Your task to perform on an android device: install app "Microsoft Excel" Image 0: 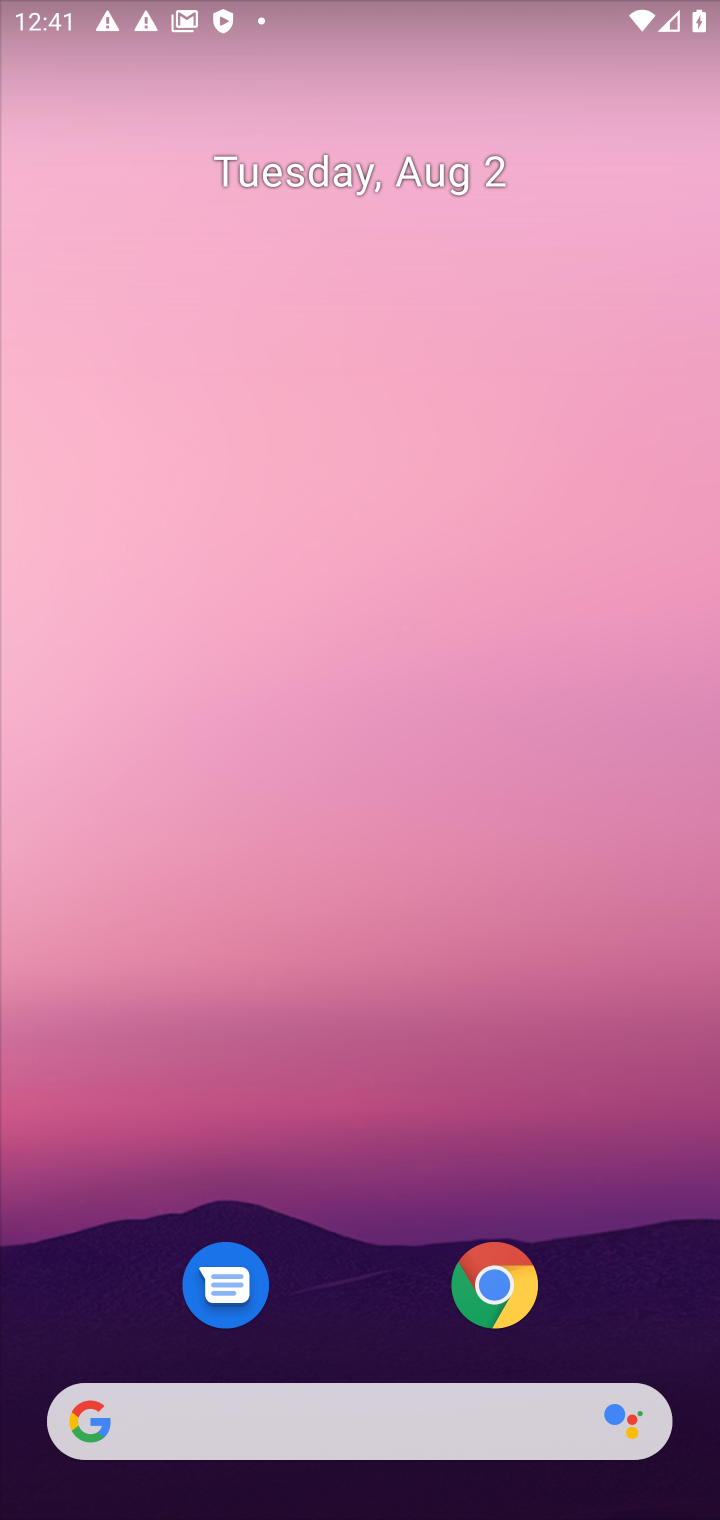
Step 0: drag from (430, 933) to (530, 88)
Your task to perform on an android device: install app "Microsoft Excel" Image 1: 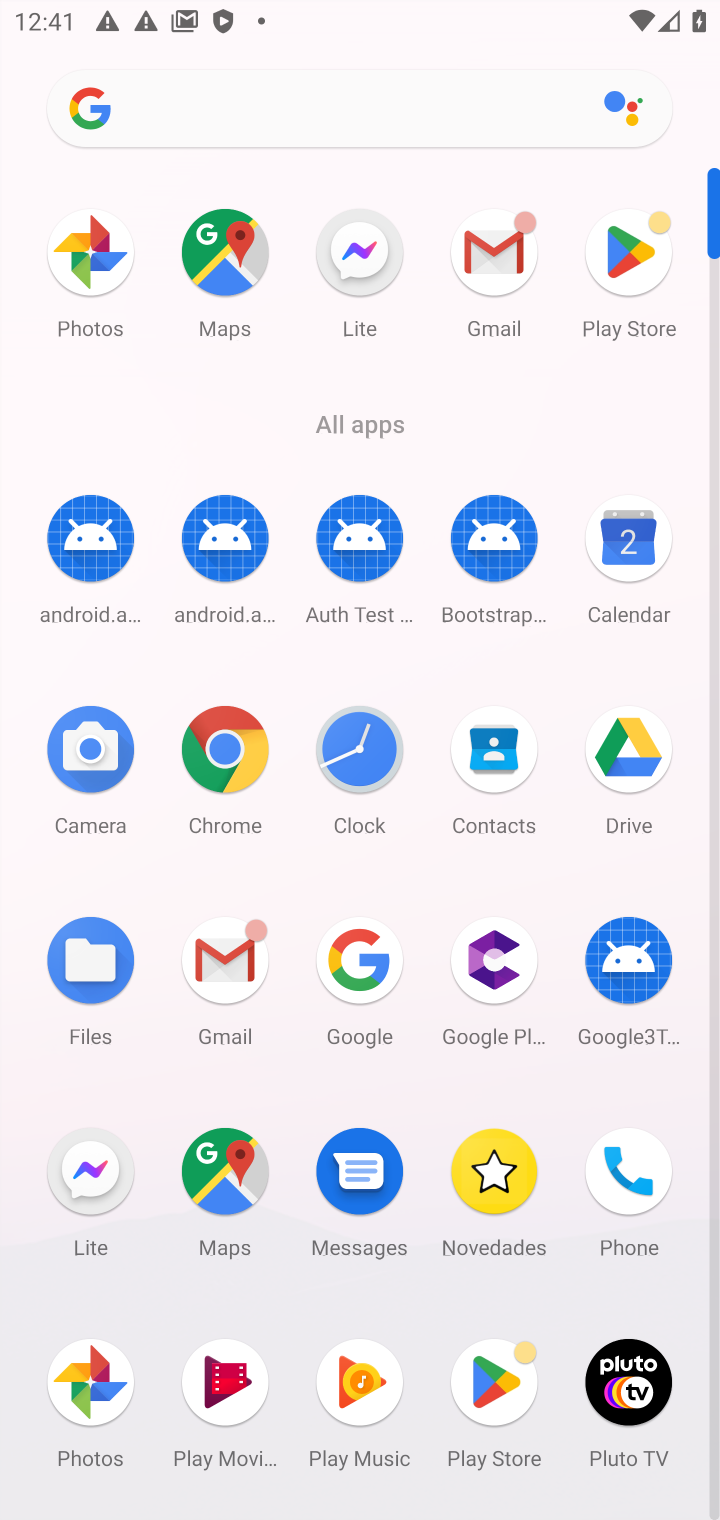
Step 1: click (475, 1376)
Your task to perform on an android device: install app "Microsoft Excel" Image 2: 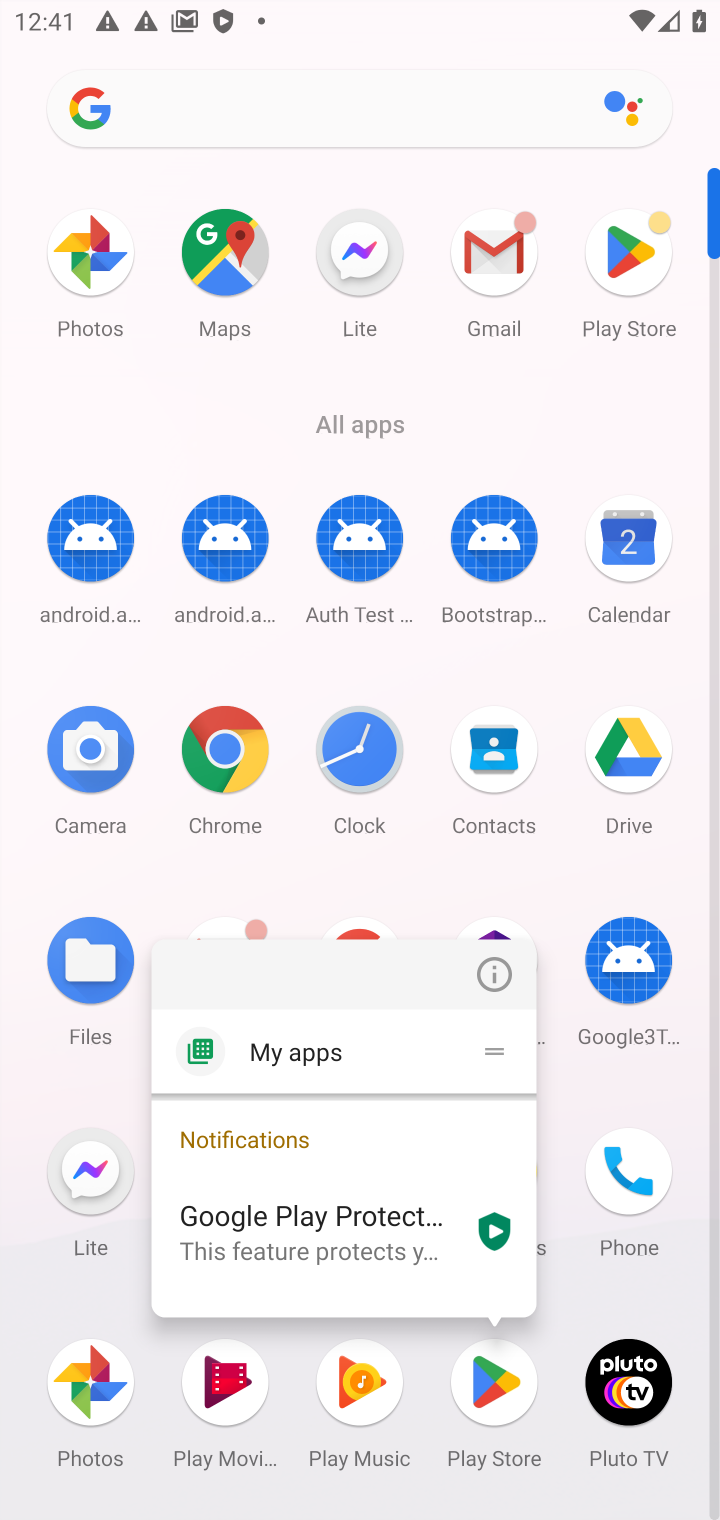
Step 2: click (495, 1381)
Your task to perform on an android device: install app "Microsoft Excel" Image 3: 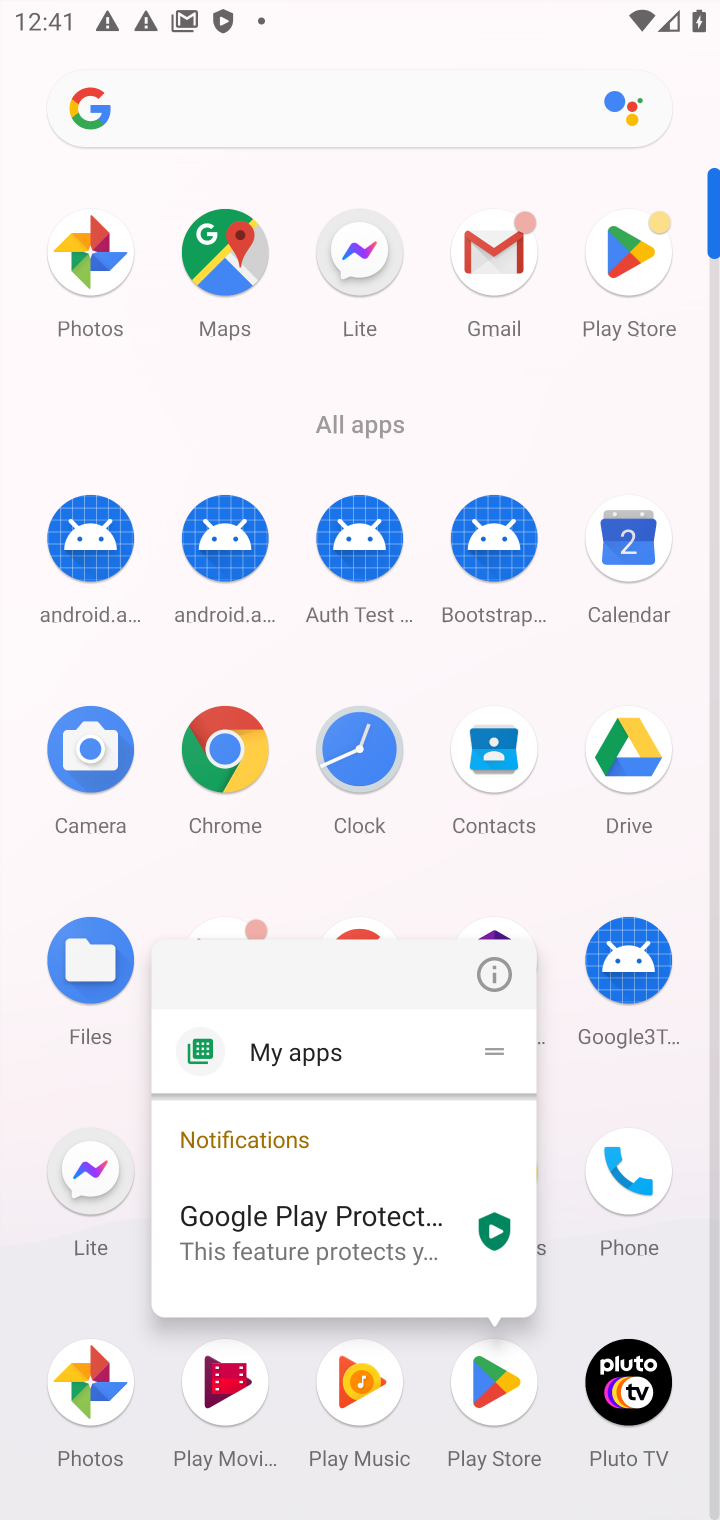
Step 3: click (502, 1386)
Your task to perform on an android device: install app "Microsoft Excel" Image 4: 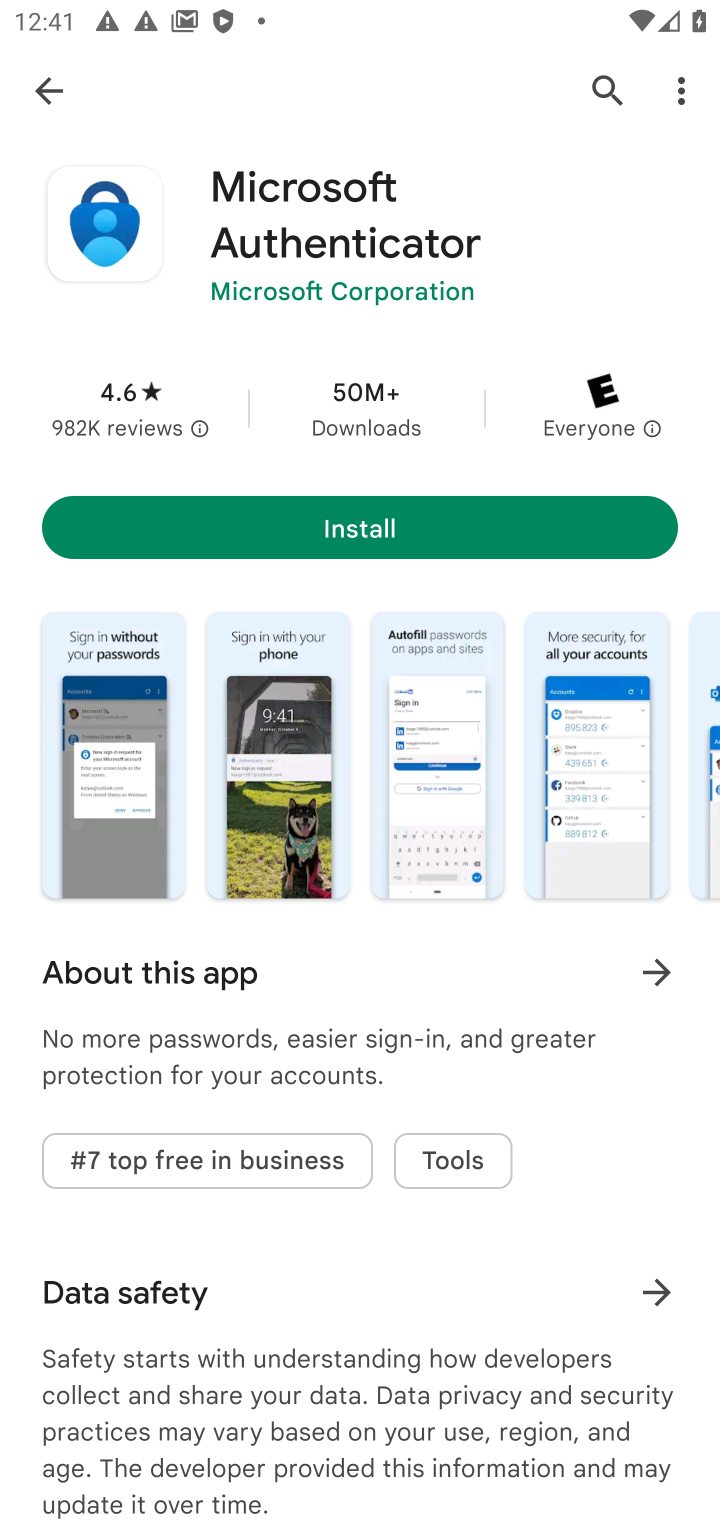
Step 4: click (610, 74)
Your task to perform on an android device: install app "Microsoft Excel" Image 5: 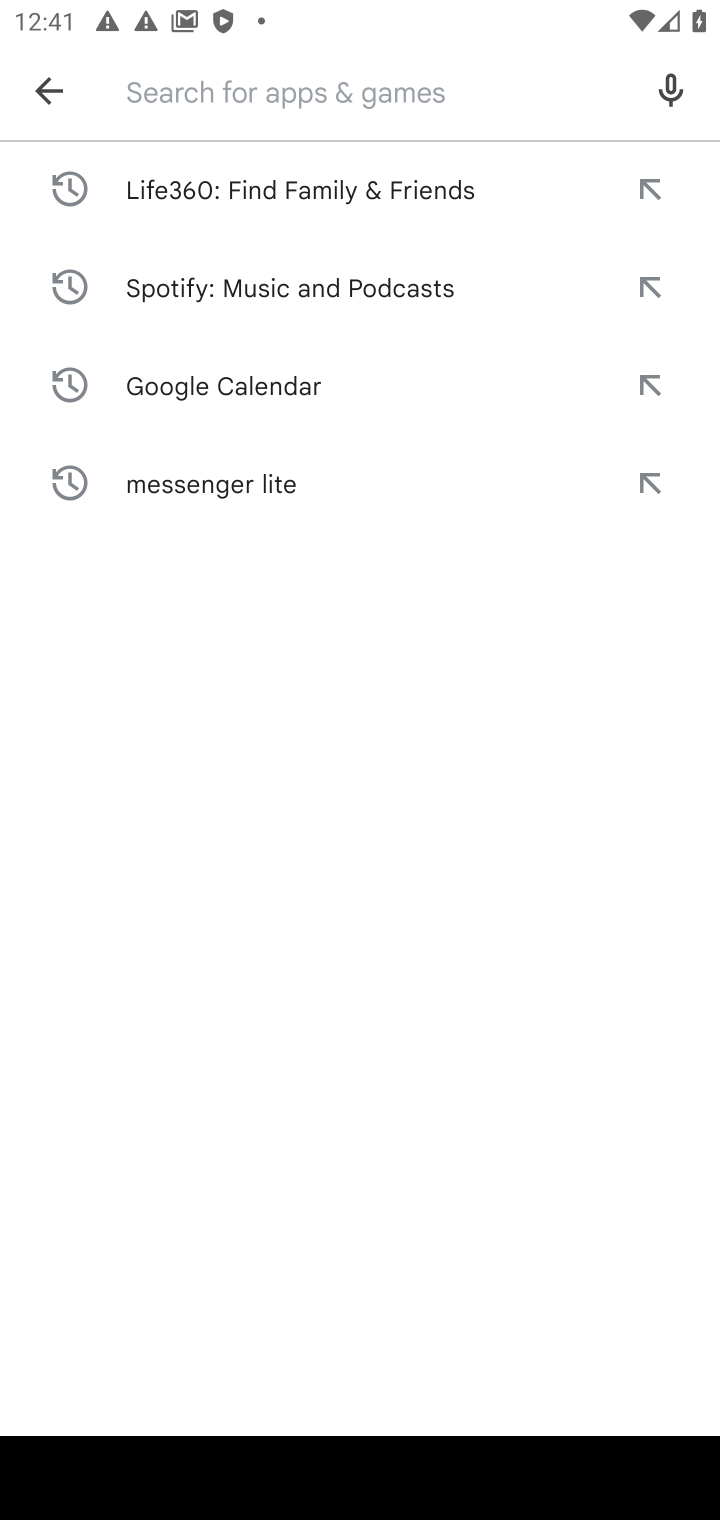
Step 5: click (44, 67)
Your task to perform on an android device: install app "Microsoft Excel" Image 6: 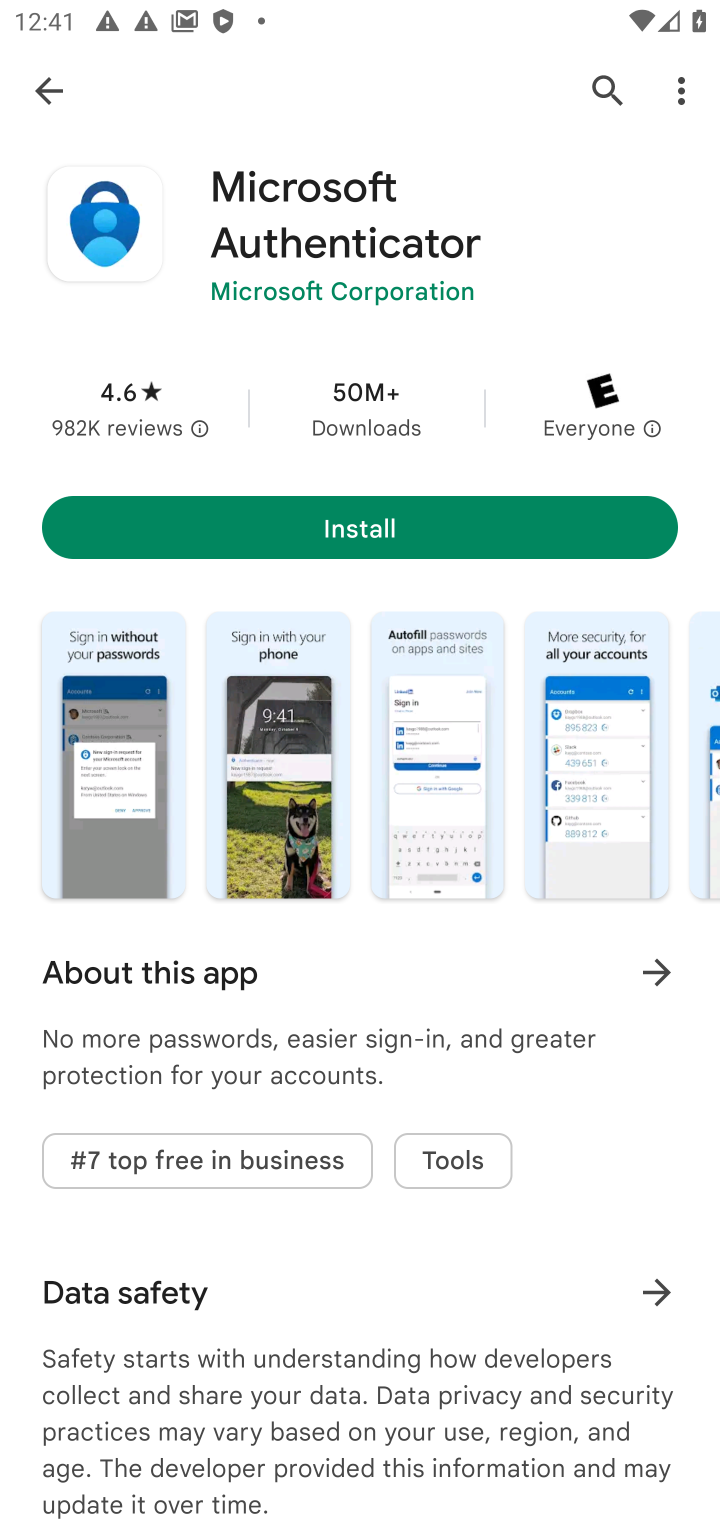
Step 6: click (537, 535)
Your task to perform on an android device: install app "Microsoft Excel" Image 7: 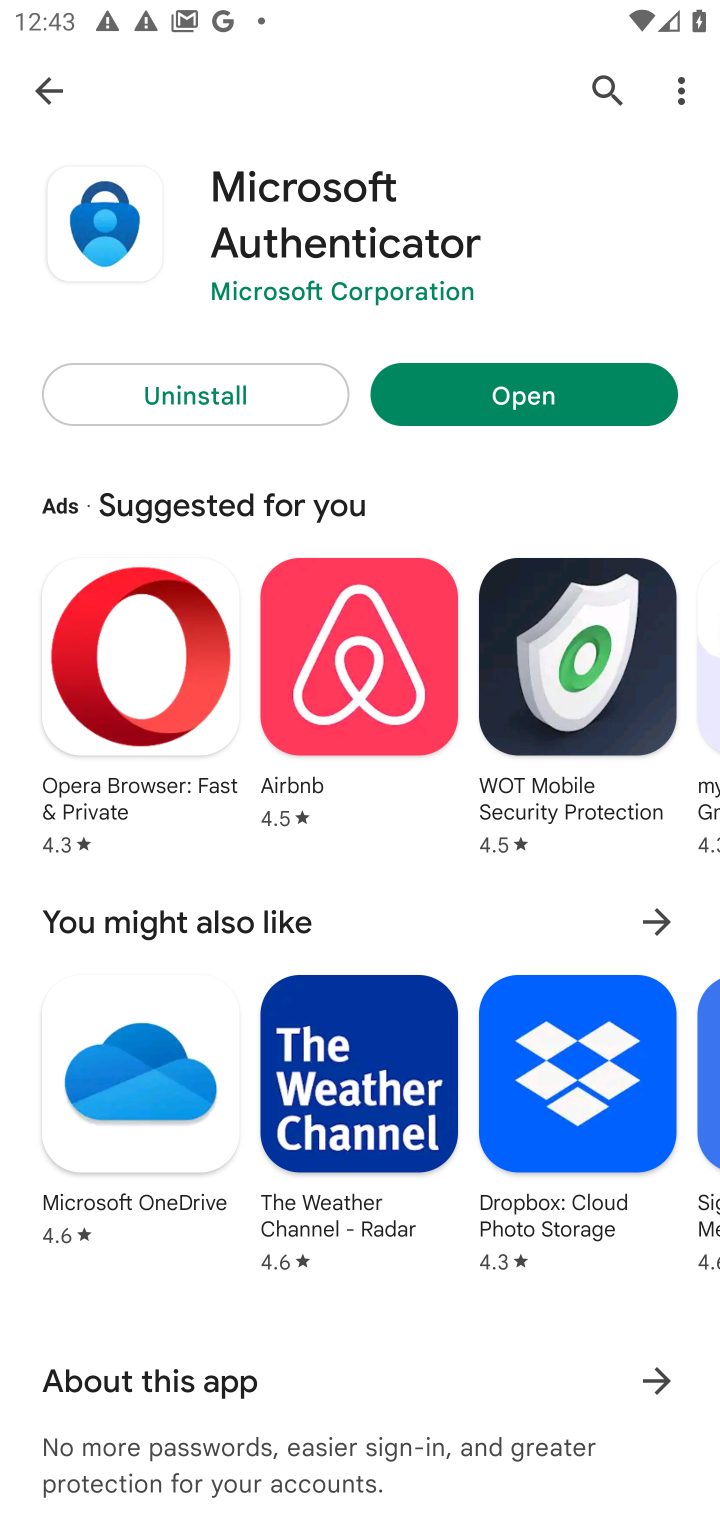
Step 7: task complete